Your task to perform on an android device: open app "DoorDash - Dasher" (install if not already installed) and go to login screen Image 0: 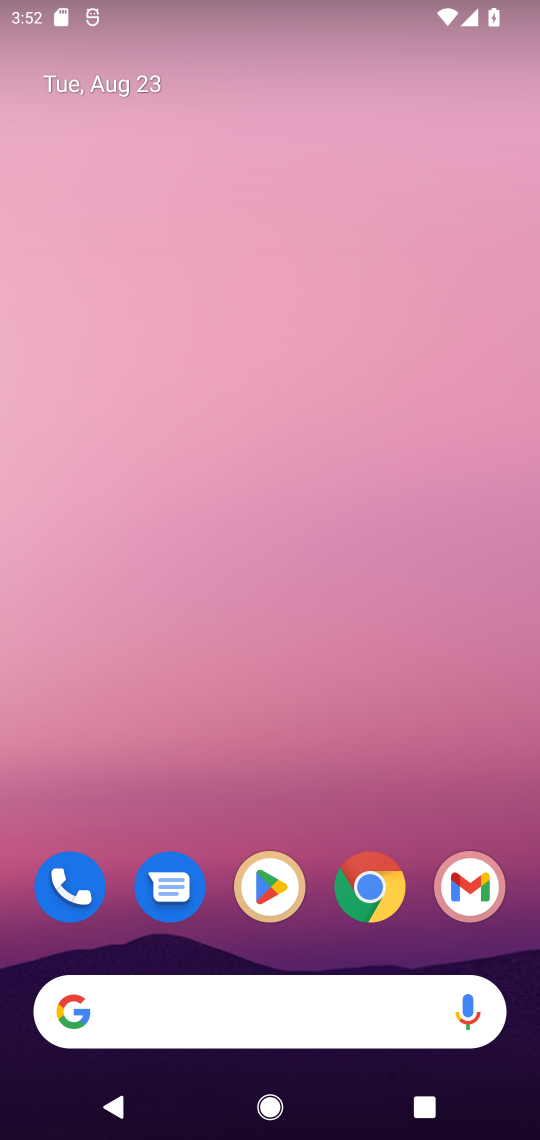
Step 0: click (262, 880)
Your task to perform on an android device: open app "DoorDash - Dasher" (install if not already installed) and go to login screen Image 1: 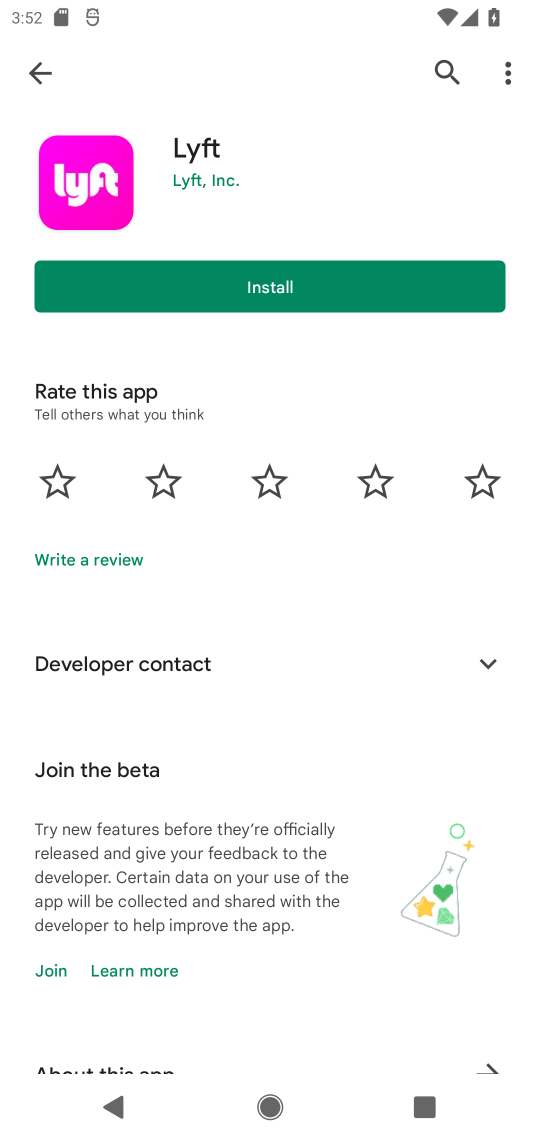
Step 1: click (35, 76)
Your task to perform on an android device: open app "DoorDash - Dasher" (install if not already installed) and go to login screen Image 2: 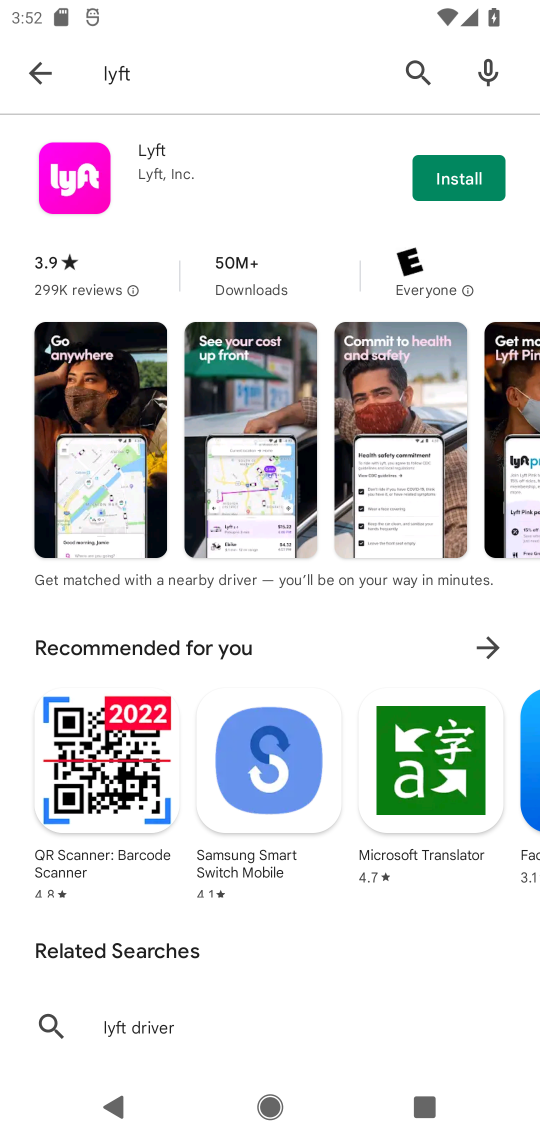
Step 2: click (35, 76)
Your task to perform on an android device: open app "DoorDash - Dasher" (install if not already installed) and go to login screen Image 3: 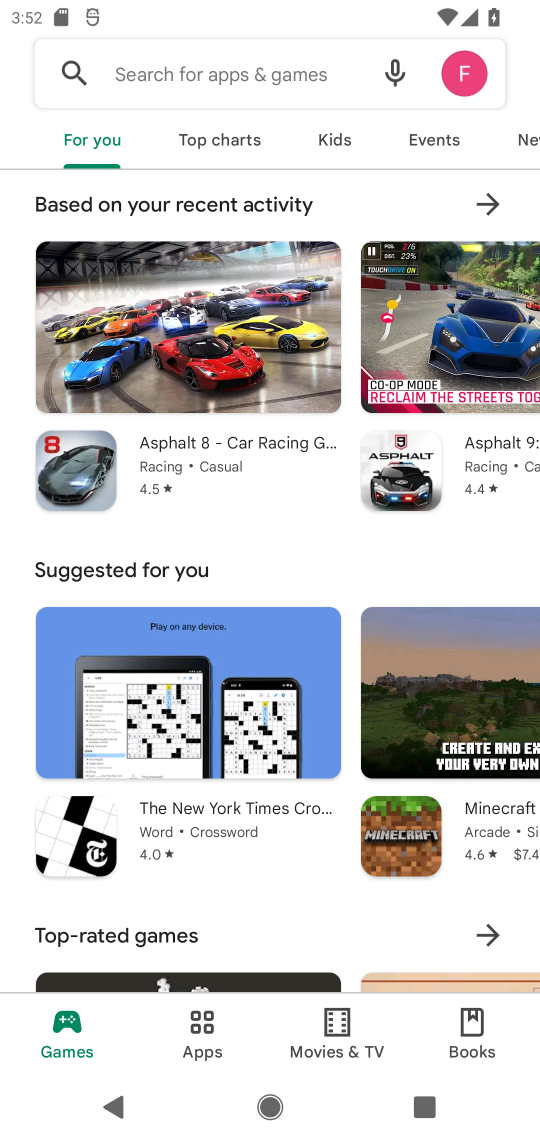
Step 3: click (208, 68)
Your task to perform on an android device: open app "DoorDash - Dasher" (install if not already installed) and go to login screen Image 4: 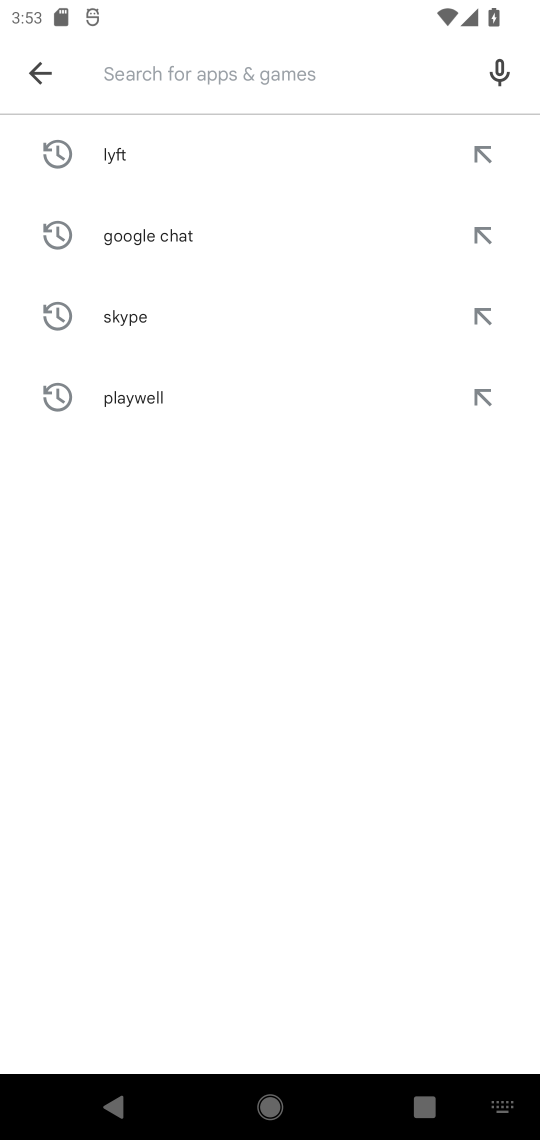
Step 4: type "DoorDash - Dasher"
Your task to perform on an android device: open app "DoorDash - Dasher" (install if not already installed) and go to login screen Image 5: 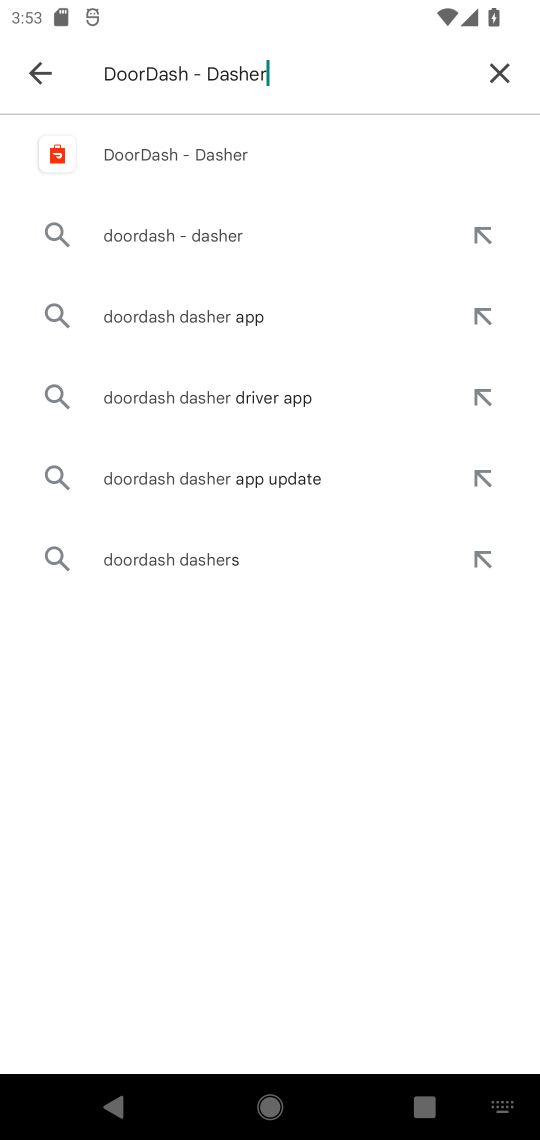
Step 5: click (137, 152)
Your task to perform on an android device: open app "DoorDash - Dasher" (install if not already installed) and go to login screen Image 6: 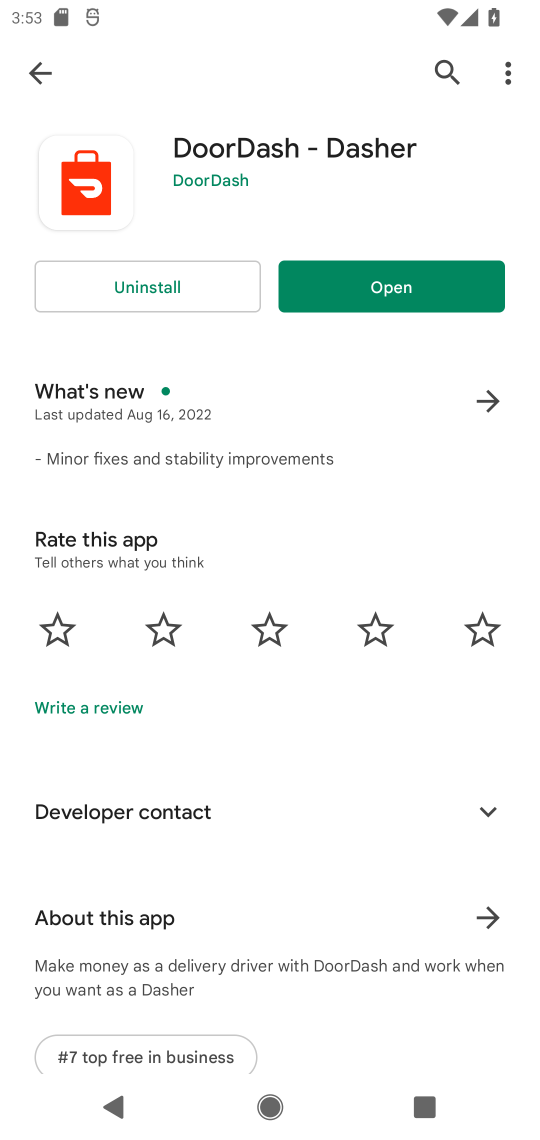
Step 6: click (389, 291)
Your task to perform on an android device: open app "DoorDash - Dasher" (install if not already installed) and go to login screen Image 7: 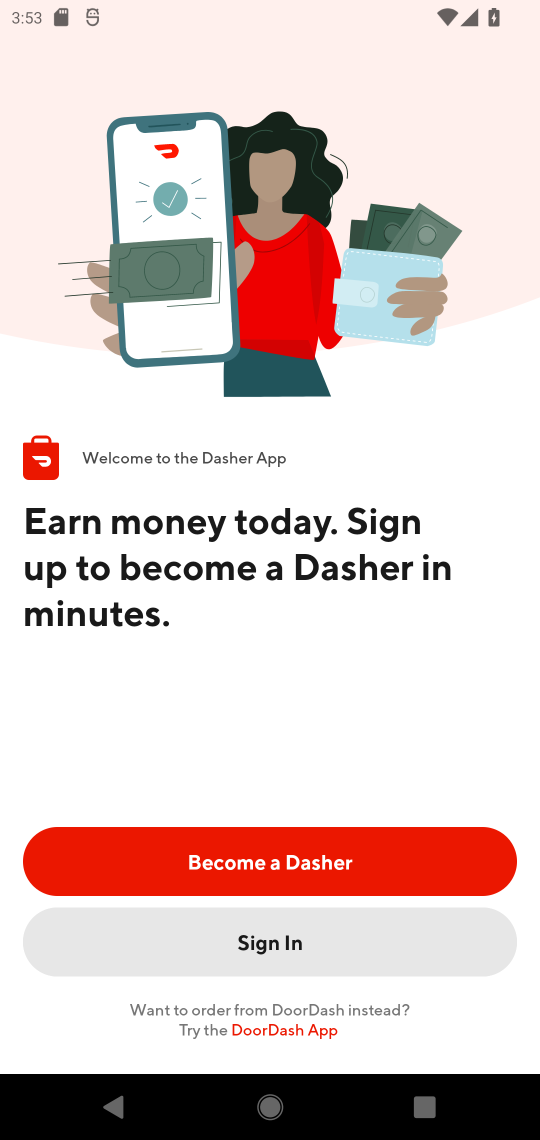
Step 7: task complete